Your task to perform on an android device: Search for Mexican restaurants on Maps Image 0: 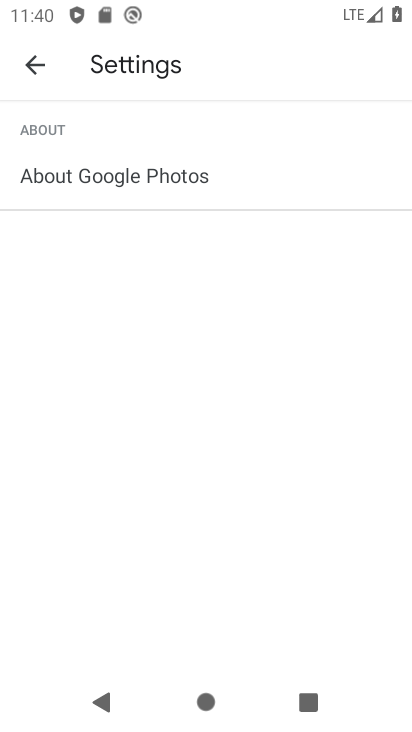
Step 0: press home button
Your task to perform on an android device: Search for Mexican restaurants on Maps Image 1: 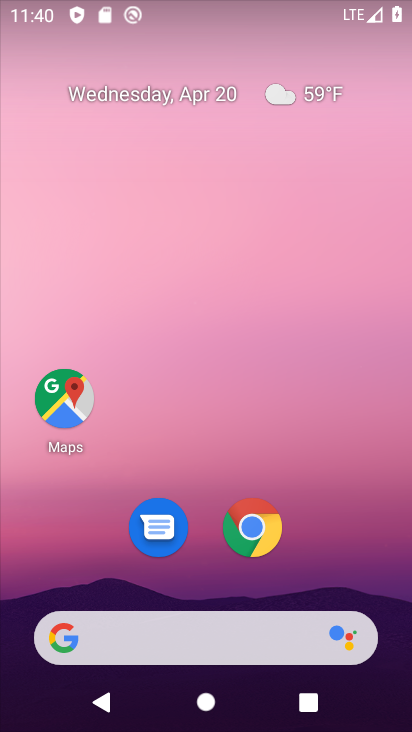
Step 1: drag from (348, 472) to (365, 111)
Your task to perform on an android device: Search for Mexican restaurants on Maps Image 2: 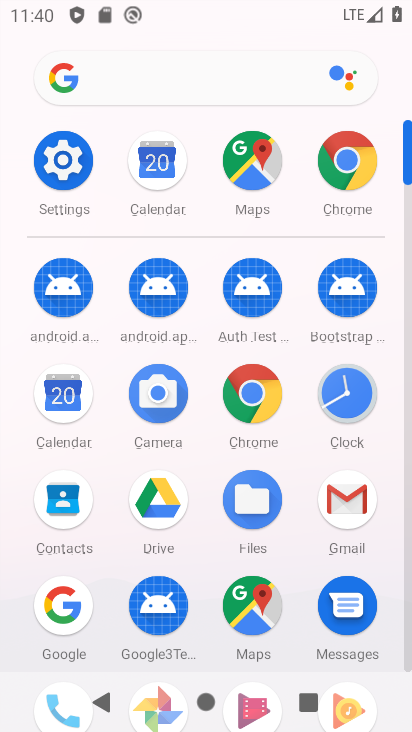
Step 2: click (259, 176)
Your task to perform on an android device: Search for Mexican restaurants on Maps Image 3: 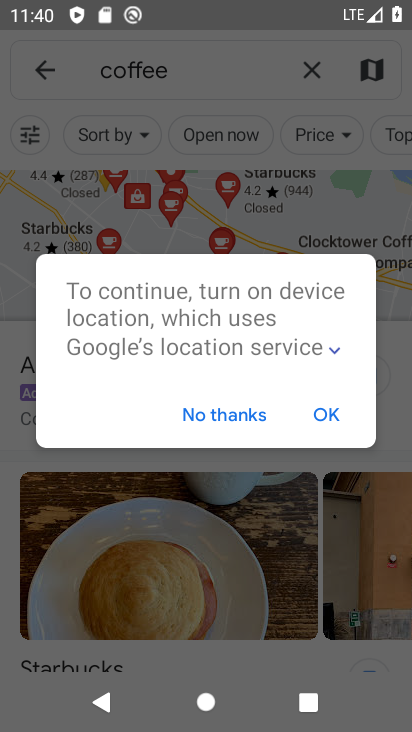
Step 3: click (314, 418)
Your task to perform on an android device: Search for Mexican restaurants on Maps Image 4: 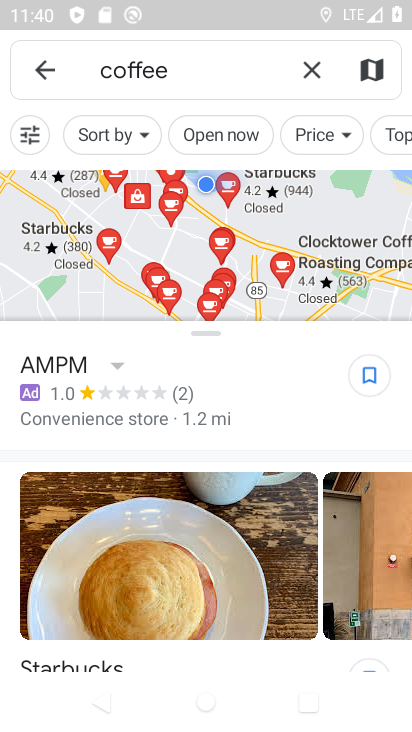
Step 4: click (316, 68)
Your task to perform on an android device: Search for Mexican restaurants on Maps Image 5: 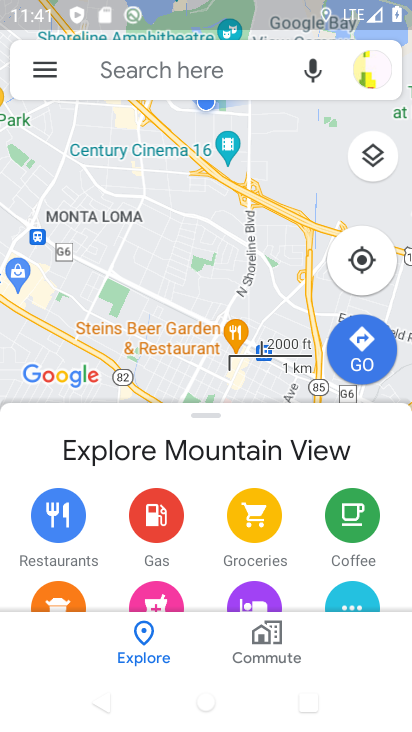
Step 5: click (199, 74)
Your task to perform on an android device: Search for Mexican restaurants on Maps Image 6: 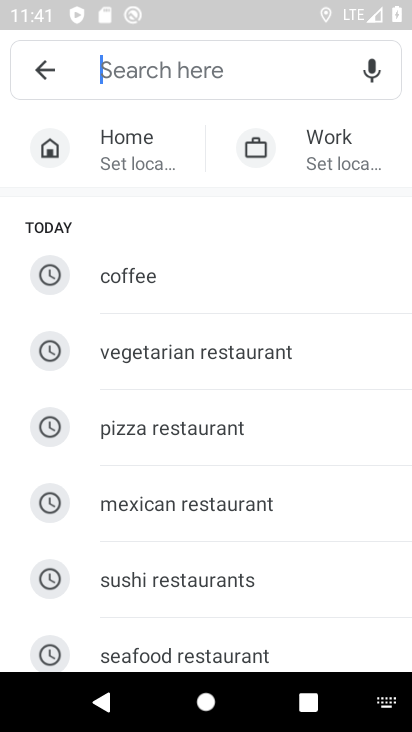
Step 6: click (224, 494)
Your task to perform on an android device: Search for Mexican restaurants on Maps Image 7: 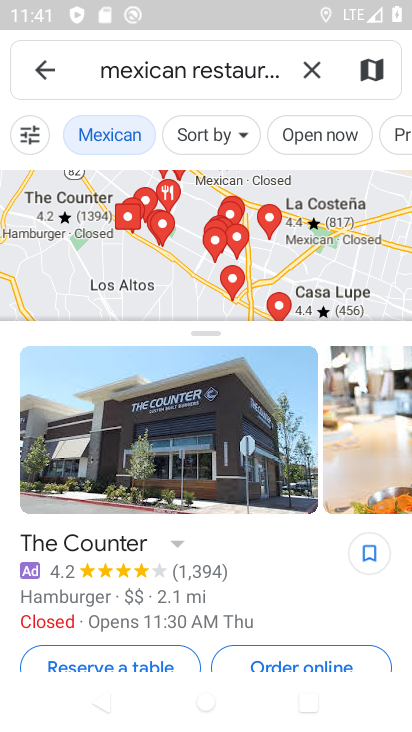
Step 7: task complete